Your task to perform on an android device: install app "Facebook Messenger" Image 0: 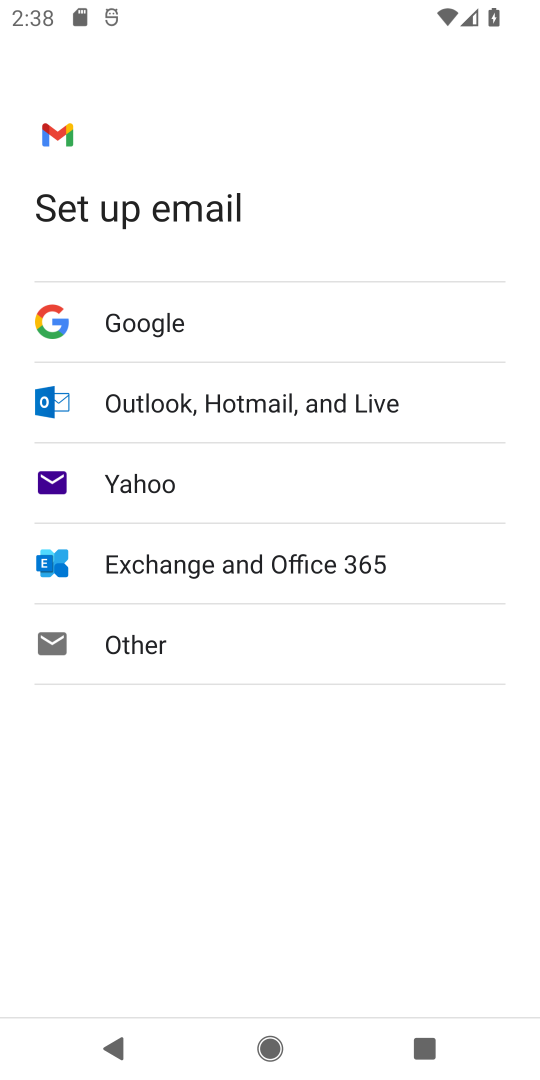
Step 0: press home button
Your task to perform on an android device: install app "Facebook Messenger" Image 1: 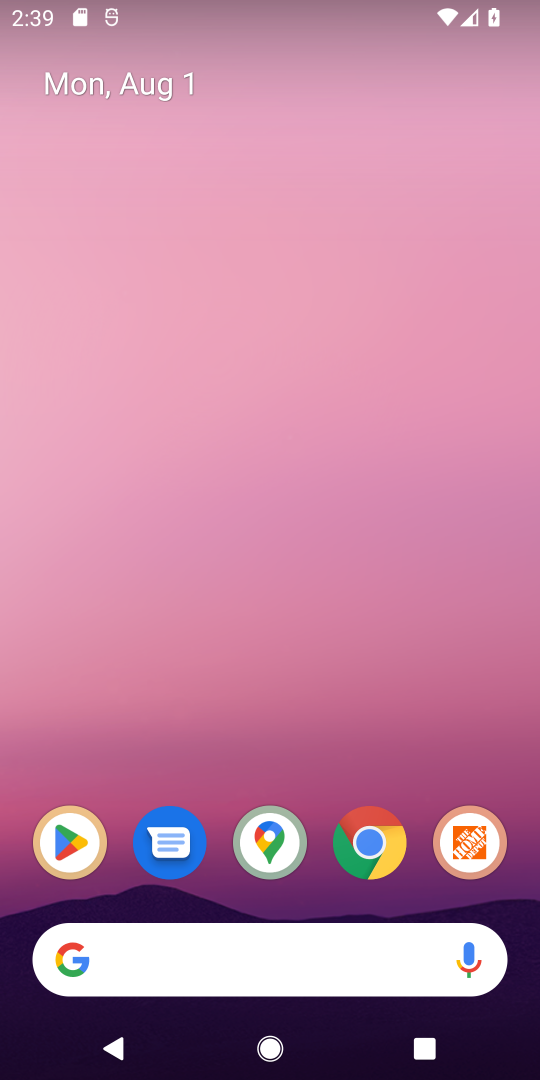
Step 1: click (77, 839)
Your task to perform on an android device: install app "Facebook Messenger" Image 2: 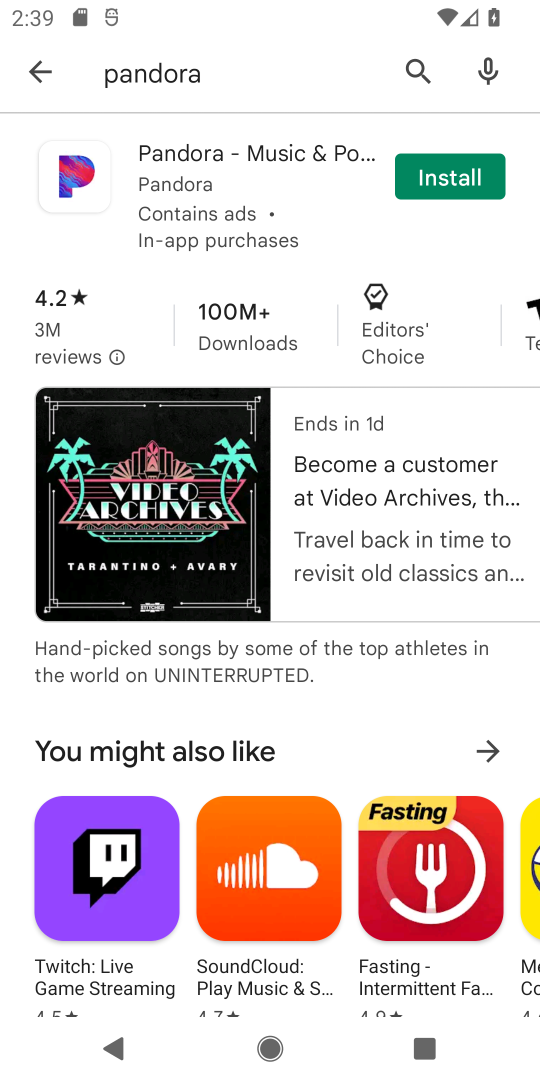
Step 2: click (207, 89)
Your task to perform on an android device: install app "Facebook Messenger" Image 3: 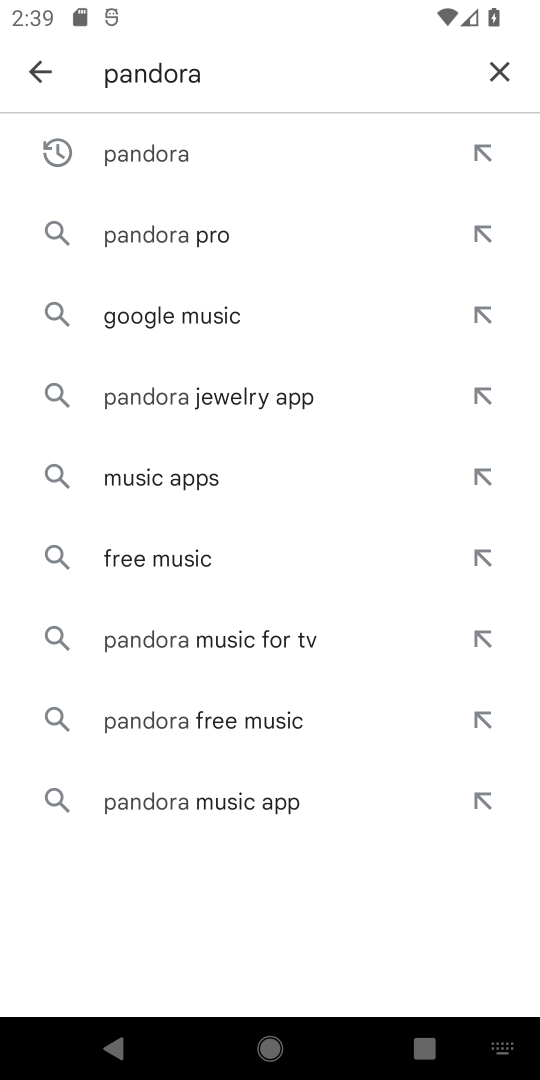
Step 3: click (195, 76)
Your task to perform on an android device: install app "Facebook Messenger" Image 4: 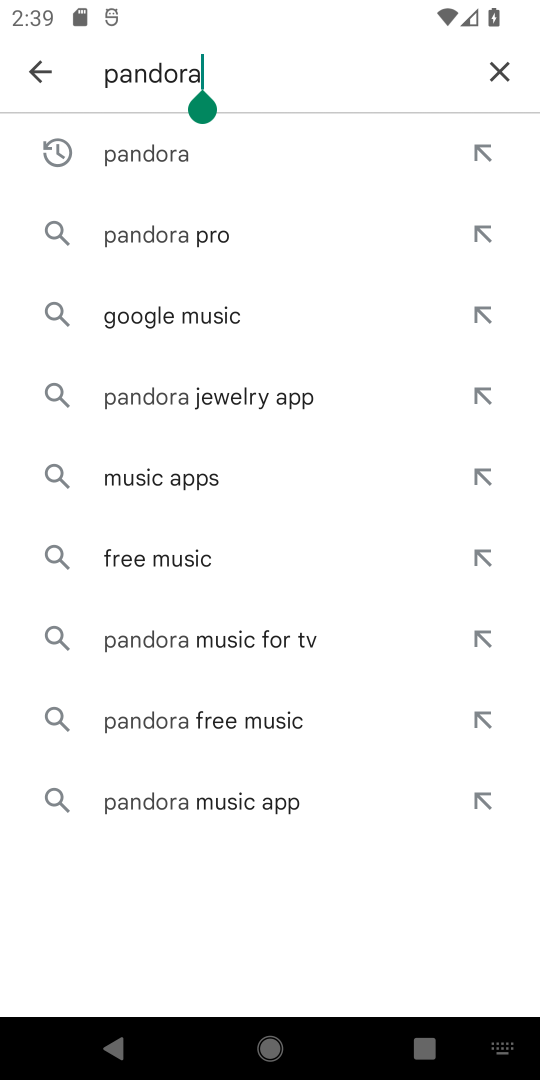
Step 4: click (500, 60)
Your task to perform on an android device: install app "Facebook Messenger" Image 5: 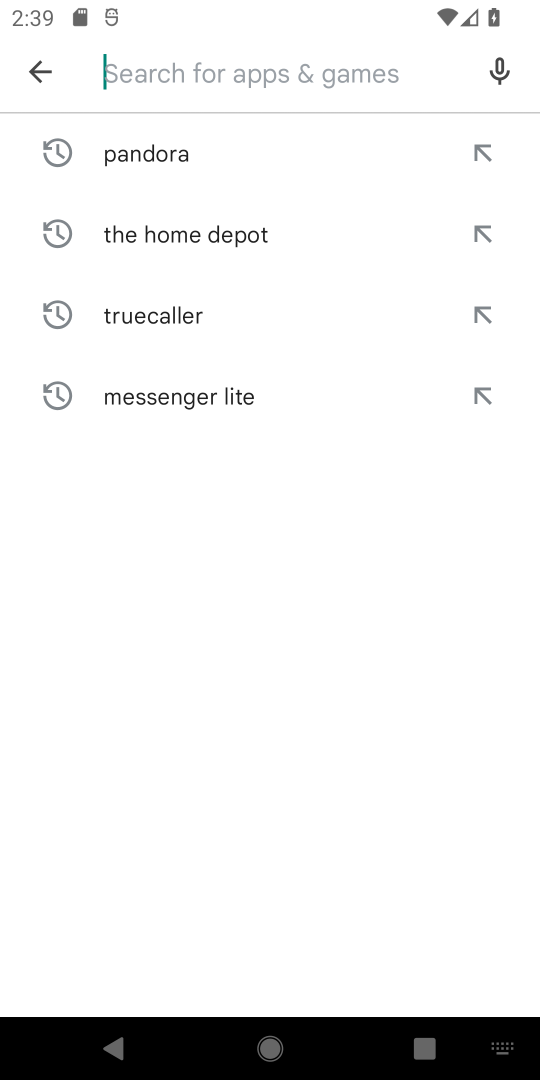
Step 5: type "facebook messenger"
Your task to perform on an android device: install app "Facebook Messenger" Image 6: 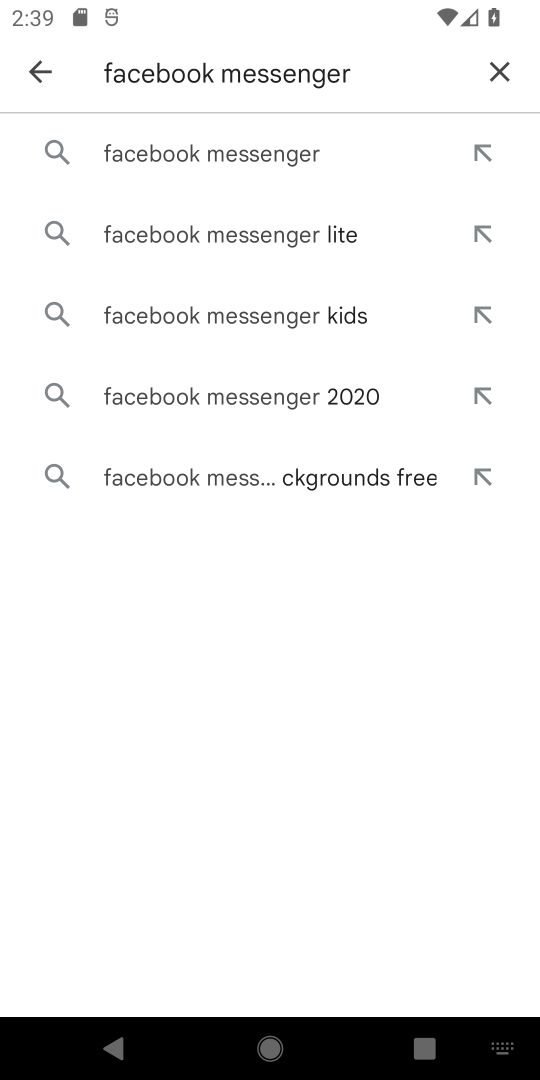
Step 6: click (251, 166)
Your task to perform on an android device: install app "Facebook Messenger" Image 7: 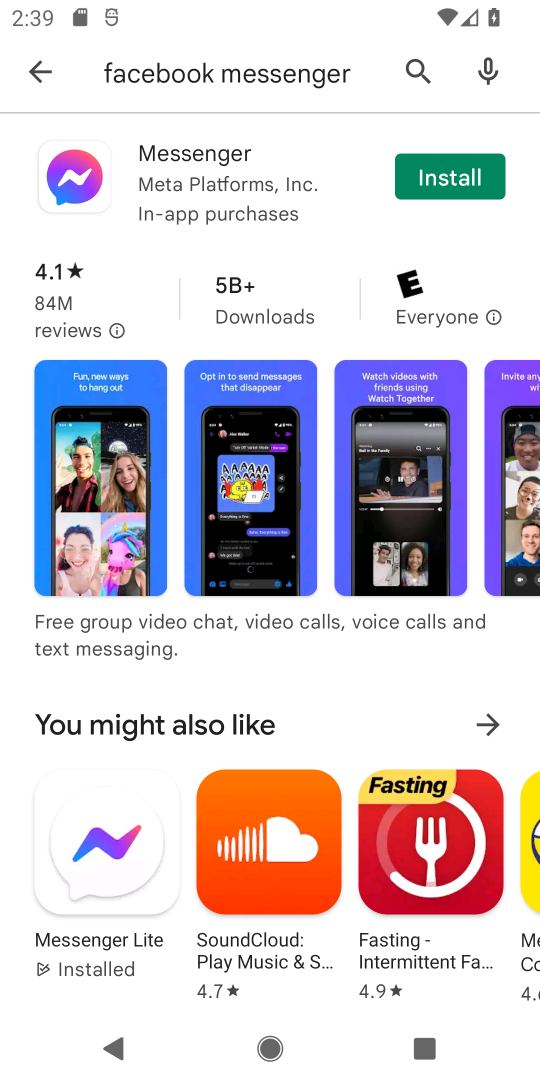
Step 7: click (455, 163)
Your task to perform on an android device: install app "Facebook Messenger" Image 8: 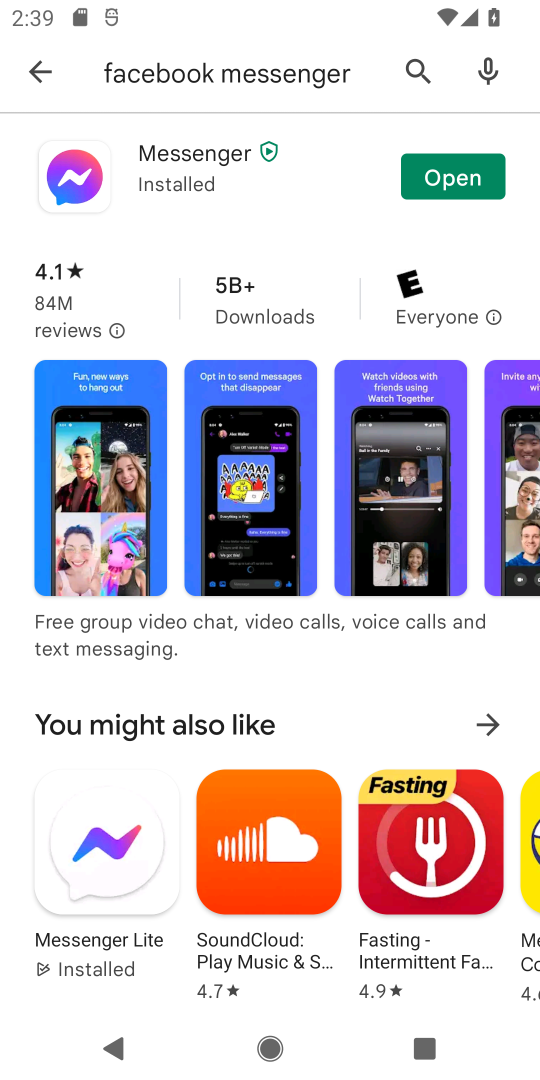
Step 8: task complete